Your task to perform on an android device: turn smart compose on in the gmail app Image 0: 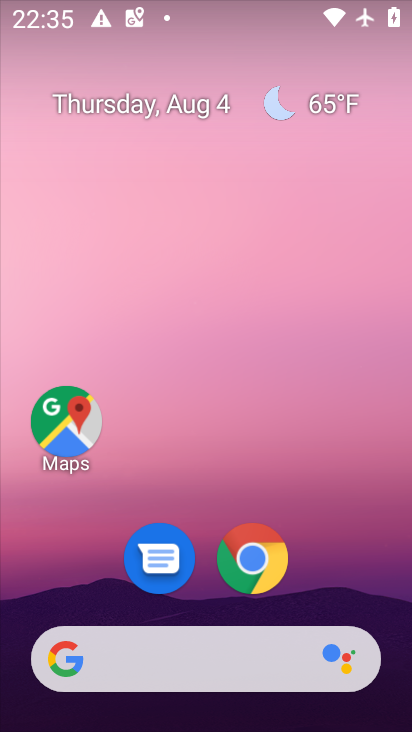
Step 0: drag from (340, 559) to (297, 151)
Your task to perform on an android device: turn smart compose on in the gmail app Image 1: 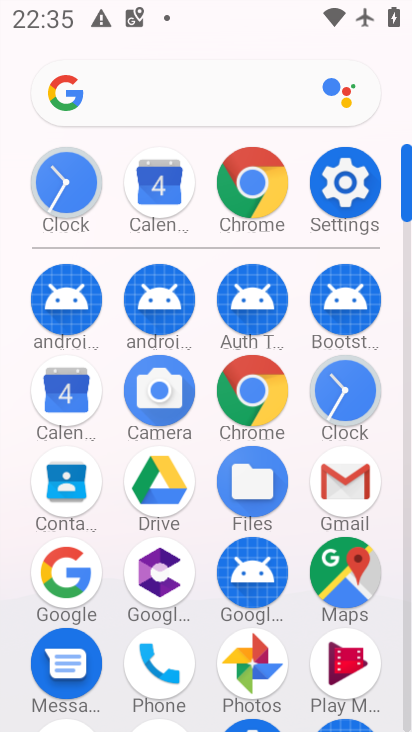
Step 1: click (340, 498)
Your task to perform on an android device: turn smart compose on in the gmail app Image 2: 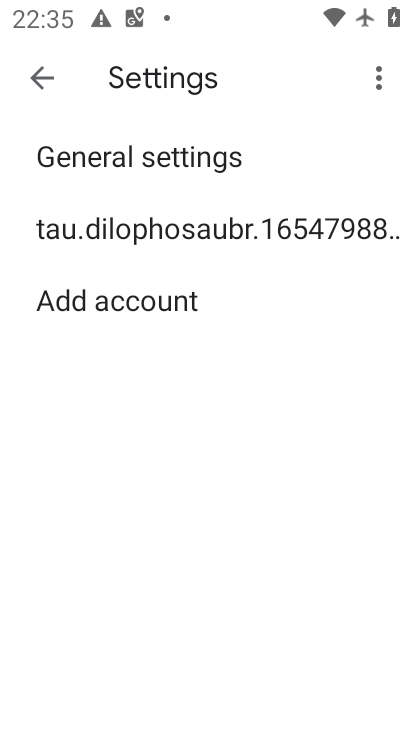
Step 2: click (89, 227)
Your task to perform on an android device: turn smart compose on in the gmail app Image 3: 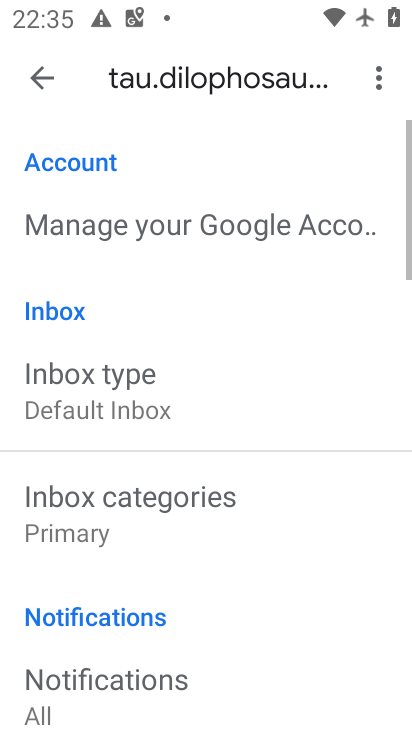
Step 3: drag from (288, 590) to (341, 250)
Your task to perform on an android device: turn smart compose on in the gmail app Image 4: 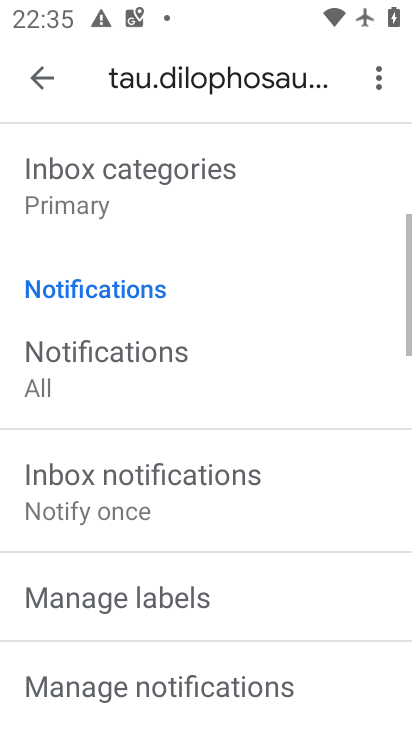
Step 4: drag from (256, 598) to (307, 258)
Your task to perform on an android device: turn smart compose on in the gmail app Image 5: 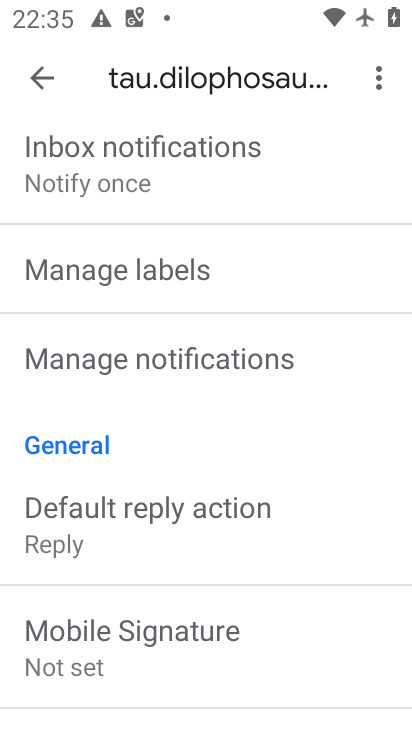
Step 5: drag from (263, 554) to (309, 214)
Your task to perform on an android device: turn smart compose on in the gmail app Image 6: 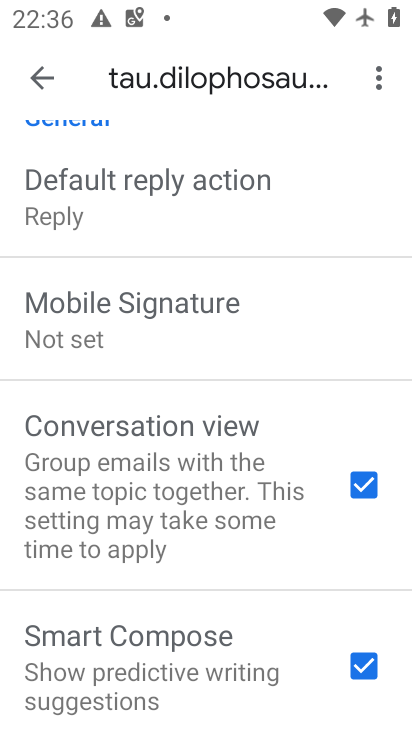
Step 6: click (289, 654)
Your task to perform on an android device: turn smart compose on in the gmail app Image 7: 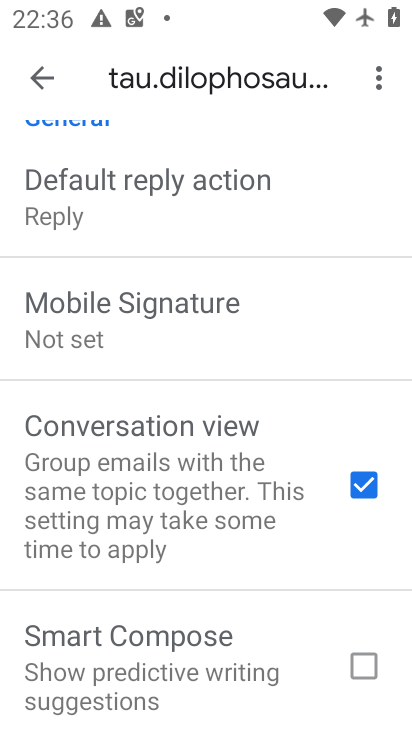
Step 7: click (356, 665)
Your task to perform on an android device: turn smart compose on in the gmail app Image 8: 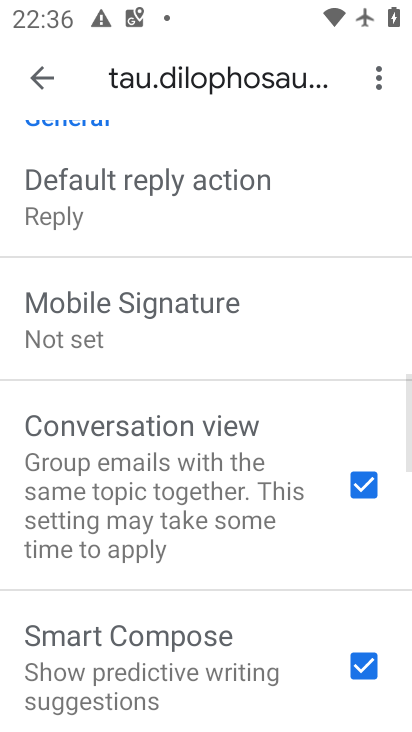
Step 8: task complete